Your task to perform on an android device: open wifi settings Image 0: 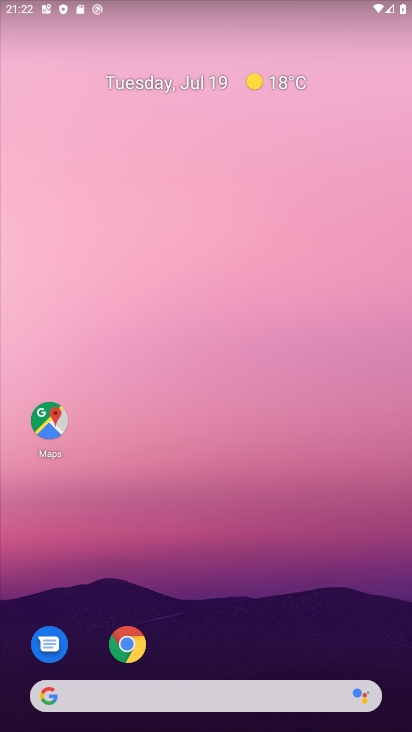
Step 0: drag from (222, 725) to (182, 343)
Your task to perform on an android device: open wifi settings Image 1: 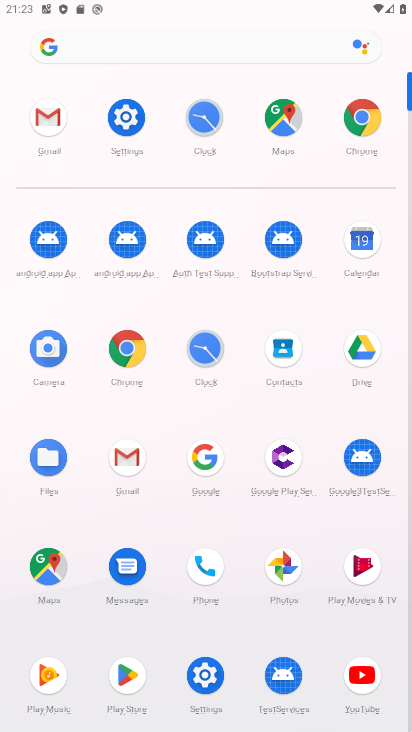
Step 1: click (130, 114)
Your task to perform on an android device: open wifi settings Image 2: 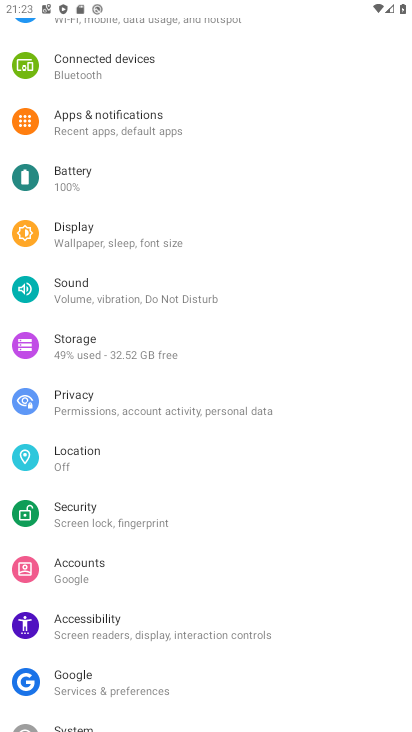
Step 2: drag from (143, 126) to (137, 550)
Your task to perform on an android device: open wifi settings Image 3: 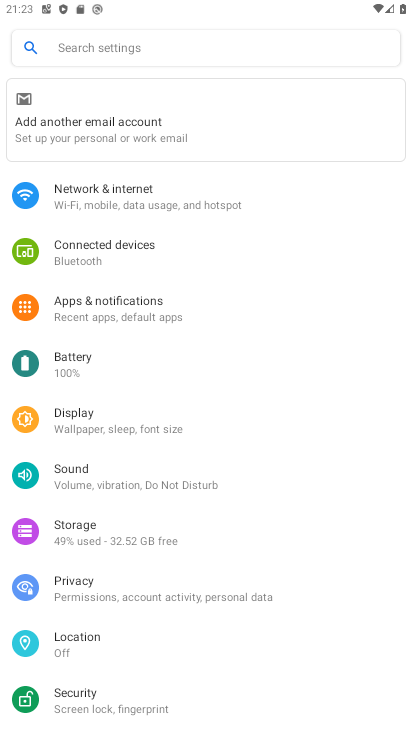
Step 3: click (127, 200)
Your task to perform on an android device: open wifi settings Image 4: 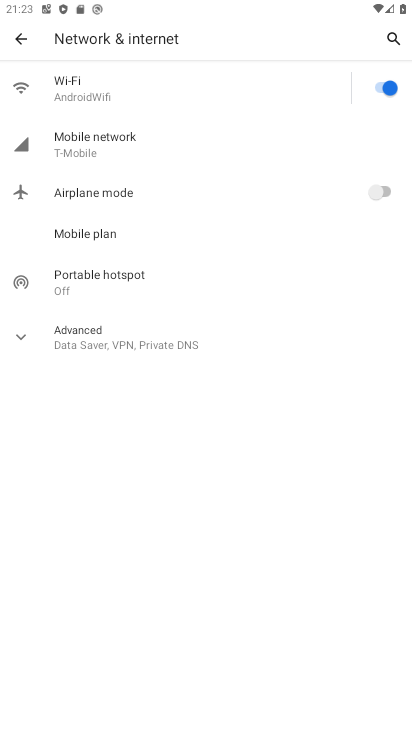
Step 4: click (67, 87)
Your task to perform on an android device: open wifi settings Image 5: 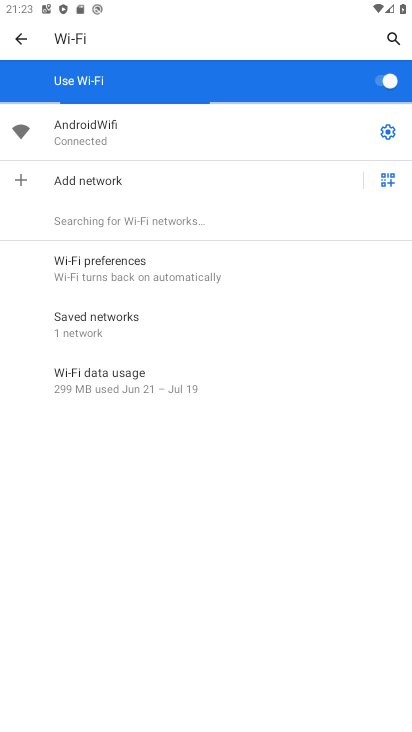
Step 5: task complete